Your task to perform on an android device: Go to location settings Image 0: 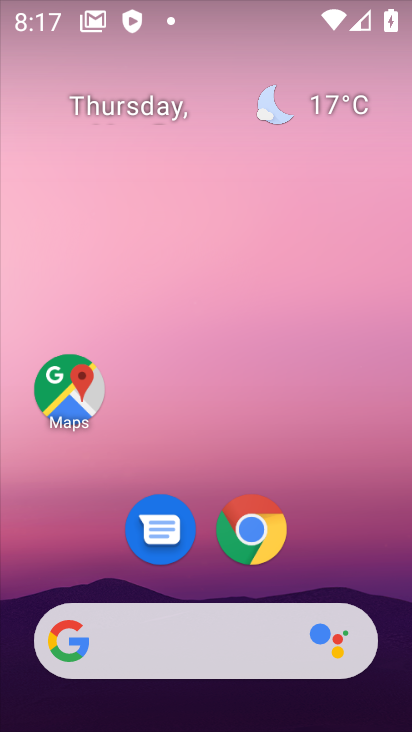
Step 0: drag from (330, 495) to (287, 9)
Your task to perform on an android device: Go to location settings Image 1: 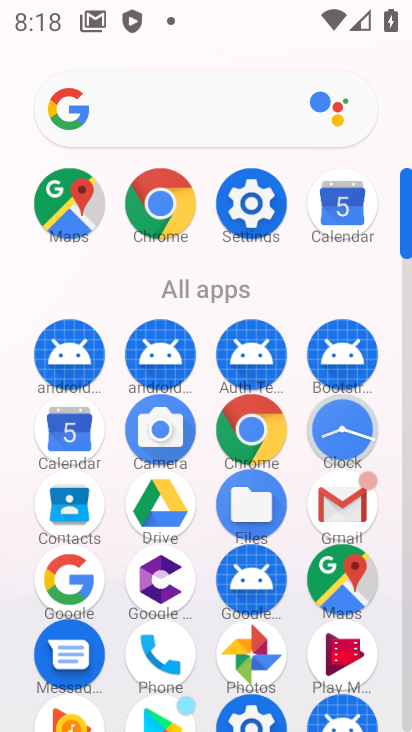
Step 1: click (246, 207)
Your task to perform on an android device: Go to location settings Image 2: 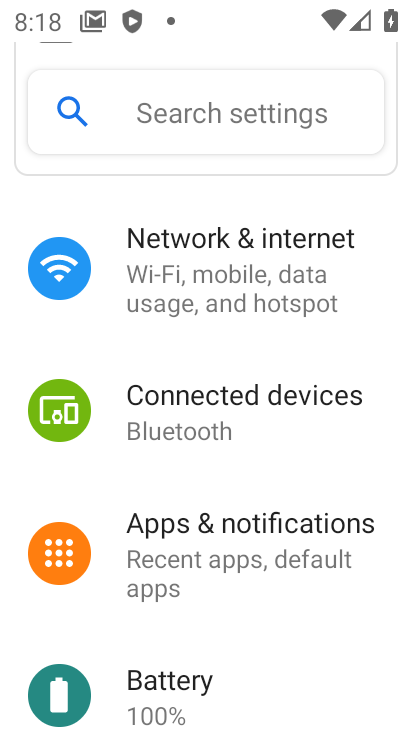
Step 2: drag from (278, 603) to (265, 401)
Your task to perform on an android device: Go to location settings Image 3: 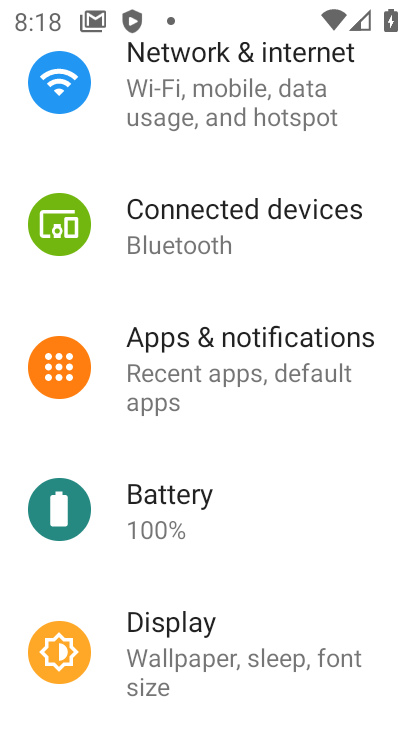
Step 3: drag from (266, 559) to (251, 212)
Your task to perform on an android device: Go to location settings Image 4: 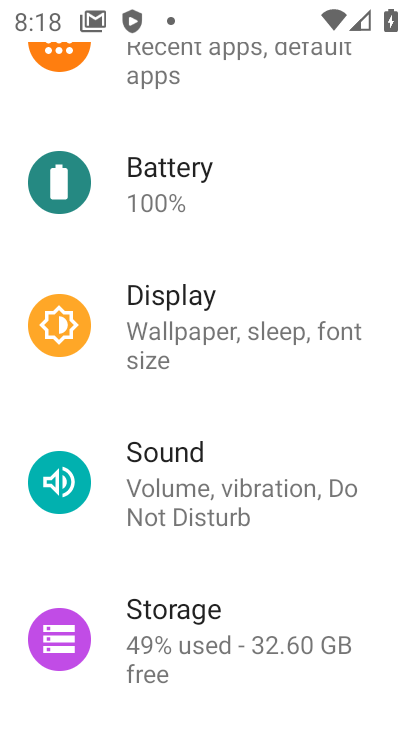
Step 4: drag from (251, 560) to (222, 217)
Your task to perform on an android device: Go to location settings Image 5: 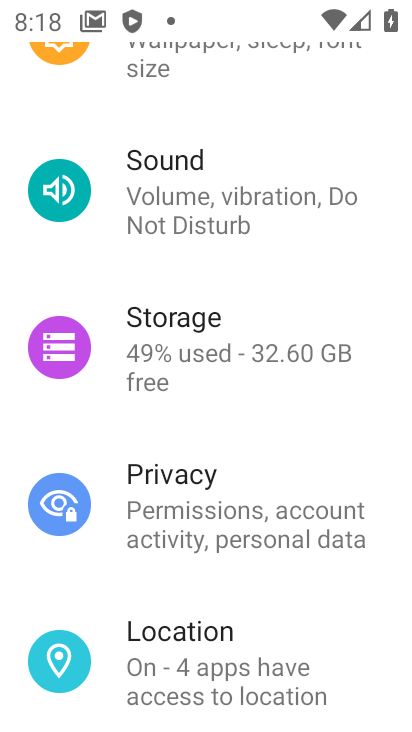
Step 5: click (181, 635)
Your task to perform on an android device: Go to location settings Image 6: 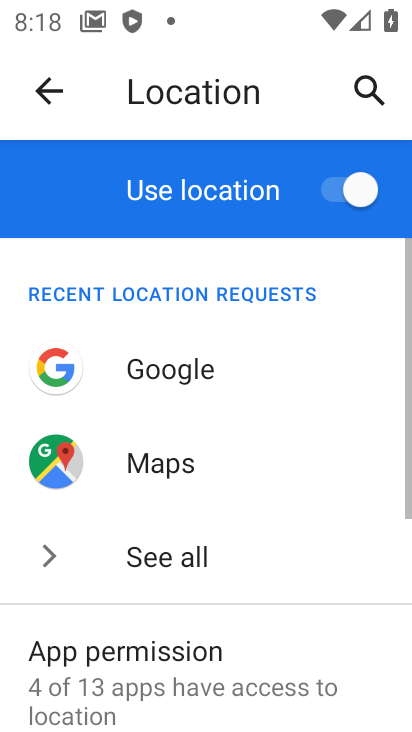
Step 6: task complete